Your task to perform on an android device: What's the weather going to be tomorrow? Image 0: 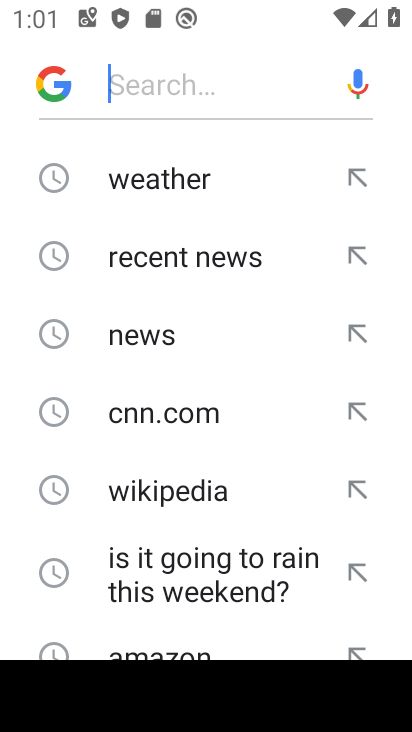
Step 0: press home button
Your task to perform on an android device: What's the weather going to be tomorrow? Image 1: 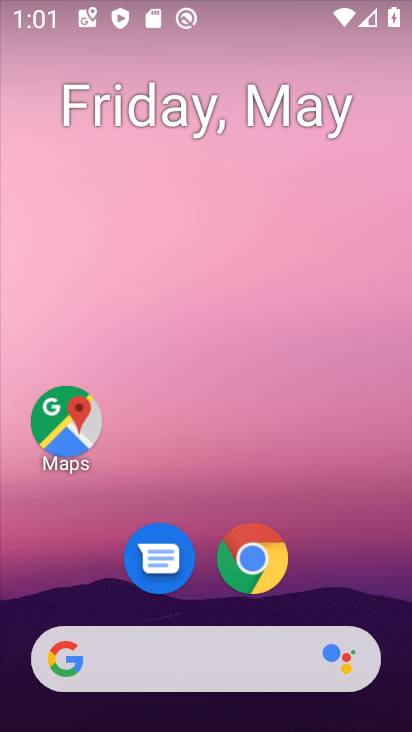
Step 1: click (280, 546)
Your task to perform on an android device: What's the weather going to be tomorrow? Image 2: 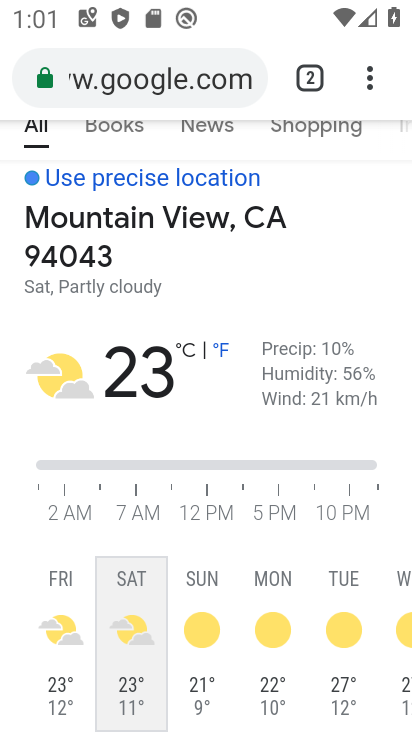
Step 2: click (207, 91)
Your task to perform on an android device: What's the weather going to be tomorrow? Image 3: 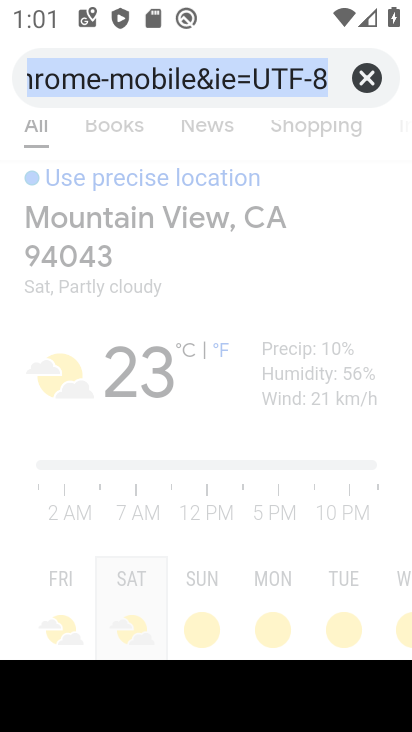
Step 3: type "What's the weather going to be tomorrow?"
Your task to perform on an android device: What's the weather going to be tomorrow? Image 4: 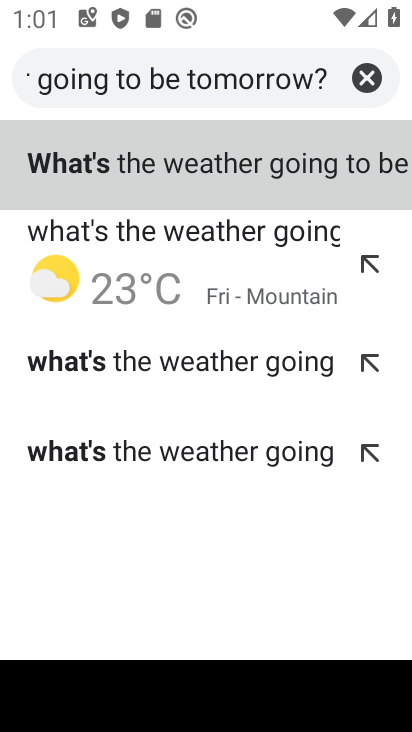
Step 4: click (299, 159)
Your task to perform on an android device: What's the weather going to be tomorrow? Image 5: 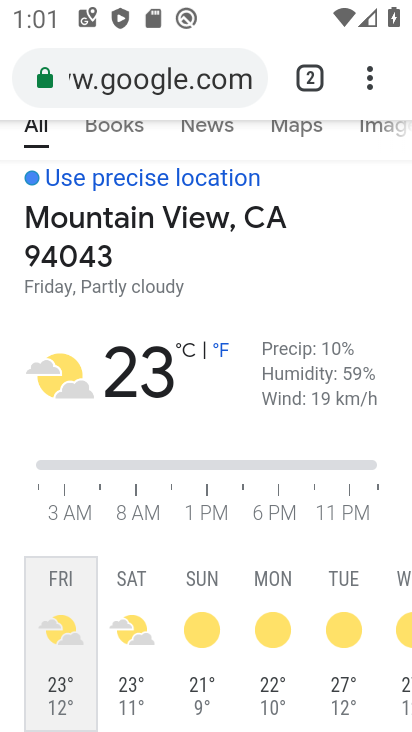
Step 5: click (130, 624)
Your task to perform on an android device: What's the weather going to be tomorrow? Image 6: 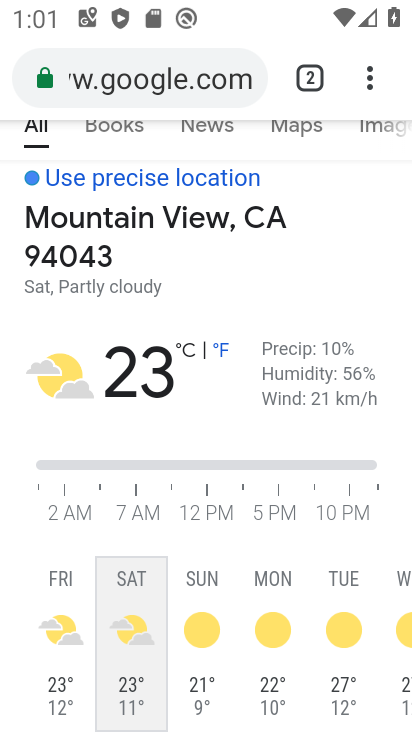
Step 6: task complete